Your task to perform on an android device: What's on my calendar today? Image 0: 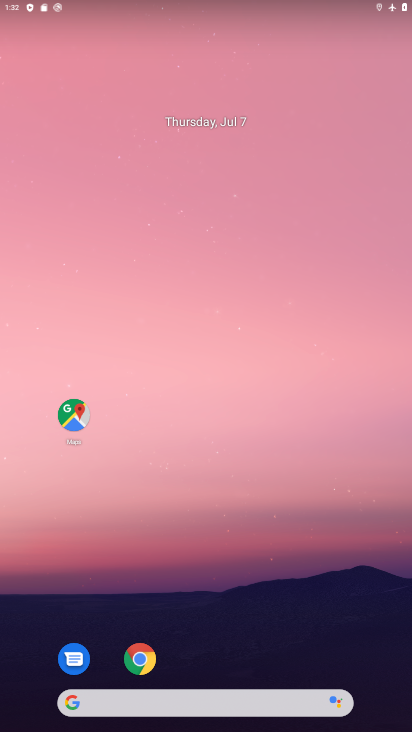
Step 0: drag from (233, 687) to (293, 52)
Your task to perform on an android device: What's on my calendar today? Image 1: 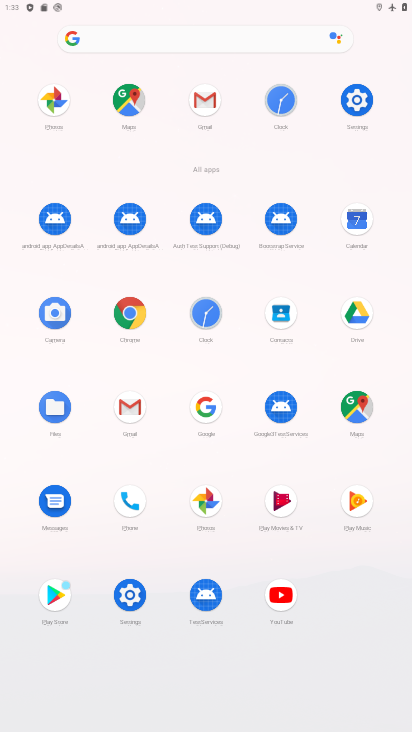
Step 1: click (364, 231)
Your task to perform on an android device: What's on my calendar today? Image 2: 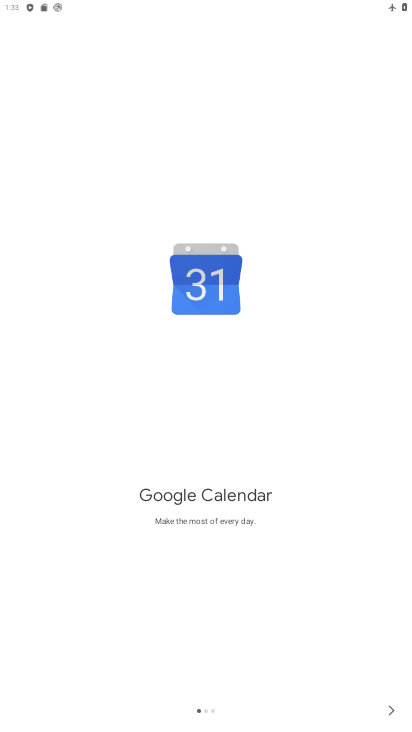
Step 2: click (393, 709)
Your task to perform on an android device: What's on my calendar today? Image 3: 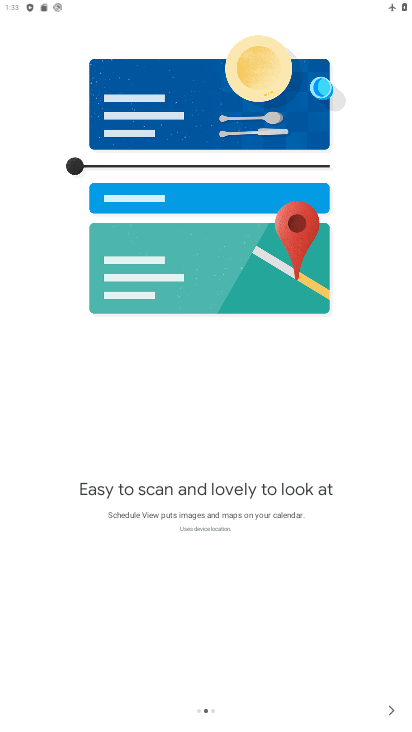
Step 3: click (391, 712)
Your task to perform on an android device: What's on my calendar today? Image 4: 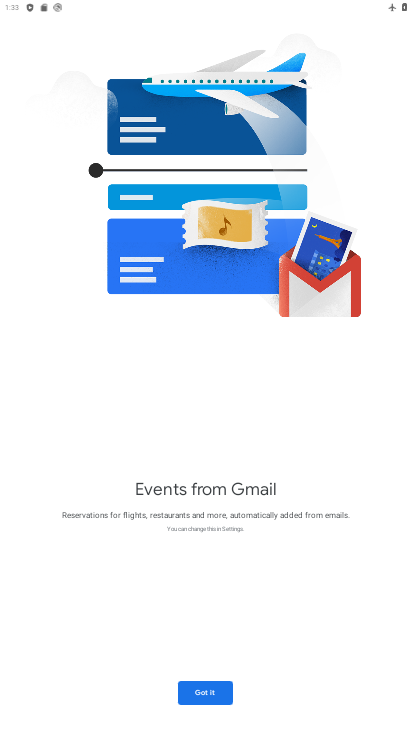
Step 4: click (203, 685)
Your task to perform on an android device: What's on my calendar today? Image 5: 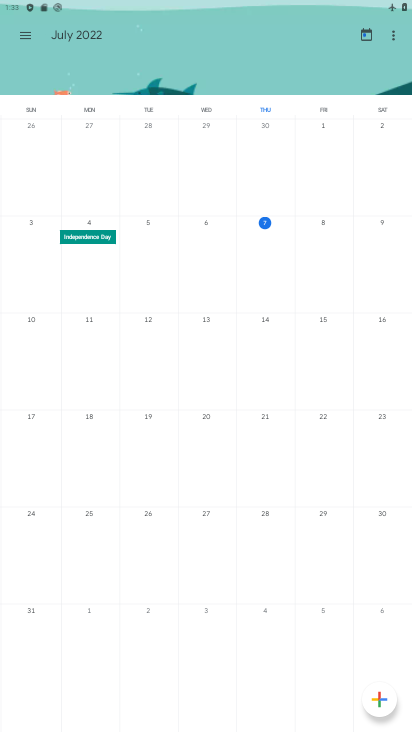
Step 5: click (265, 266)
Your task to perform on an android device: What's on my calendar today? Image 6: 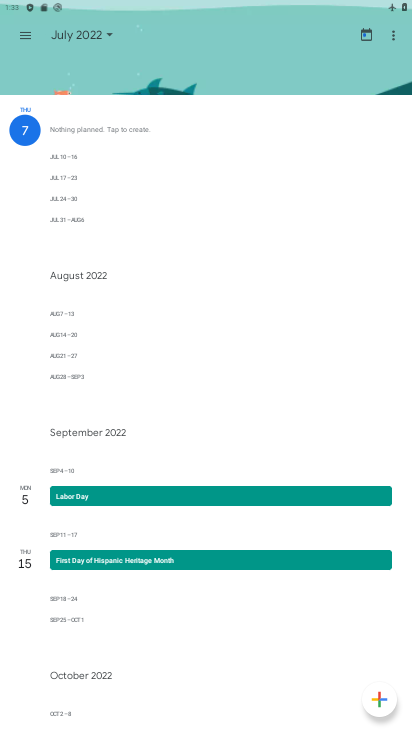
Step 6: task complete